Your task to perform on an android device: check out phone information Image 0: 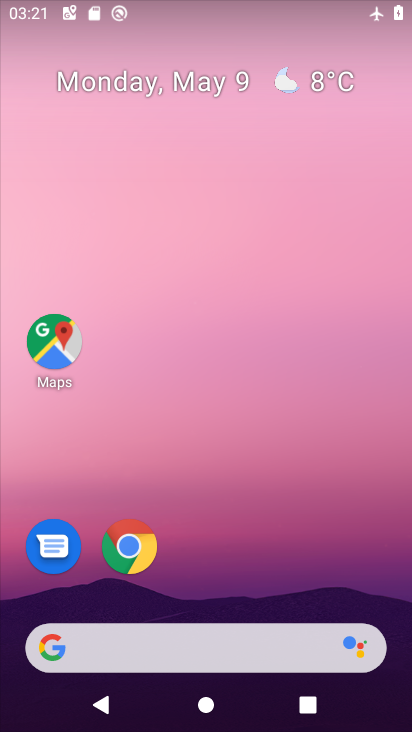
Step 0: drag from (273, 505) to (202, 5)
Your task to perform on an android device: check out phone information Image 1: 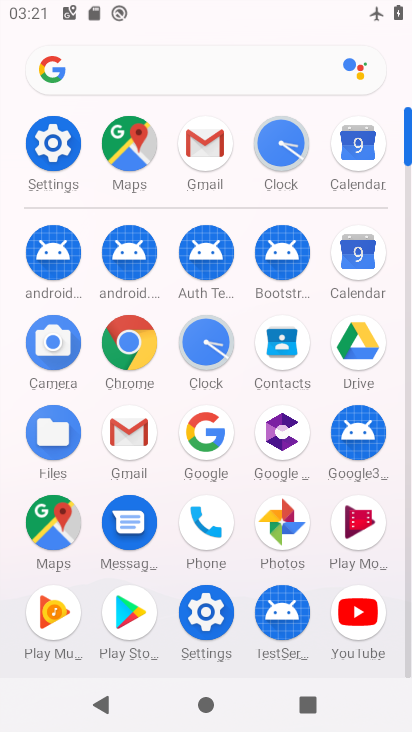
Step 1: click (201, 515)
Your task to perform on an android device: check out phone information Image 2: 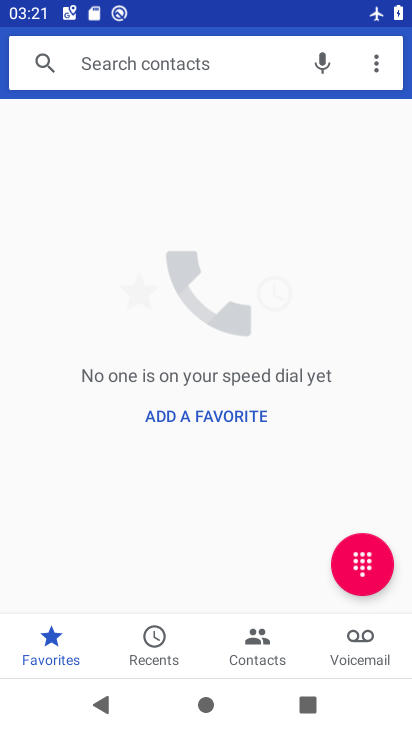
Step 2: click (373, 62)
Your task to perform on an android device: check out phone information Image 3: 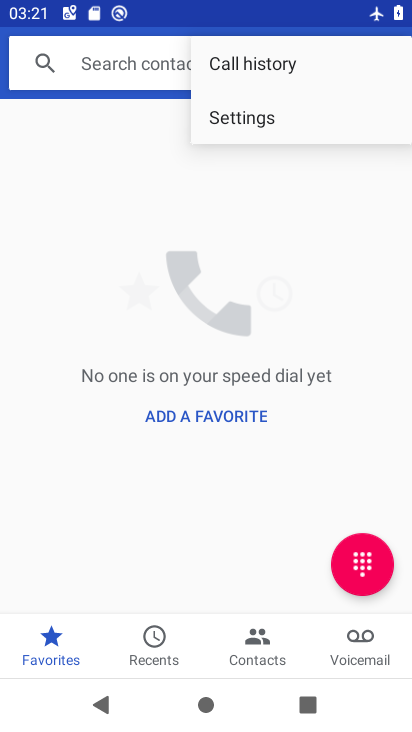
Step 3: click (291, 116)
Your task to perform on an android device: check out phone information Image 4: 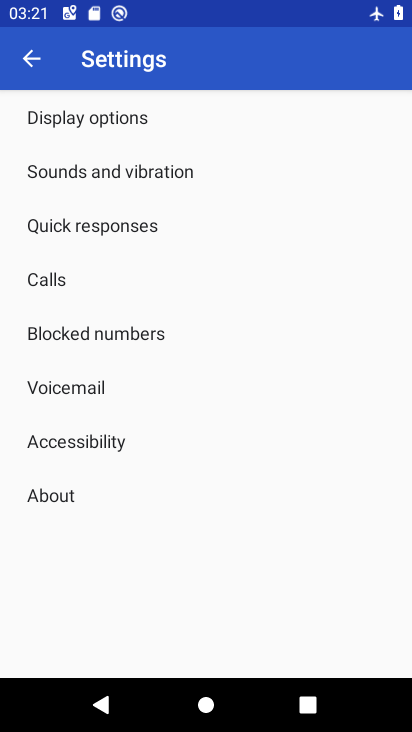
Step 4: click (63, 486)
Your task to perform on an android device: check out phone information Image 5: 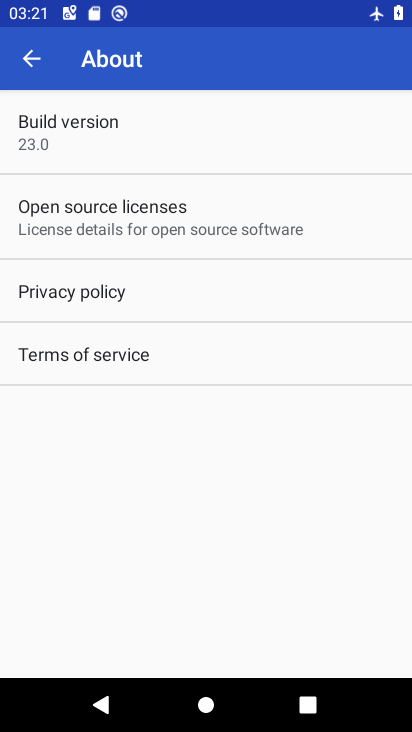
Step 5: task complete